Your task to perform on an android device: change the clock display to digital Image 0: 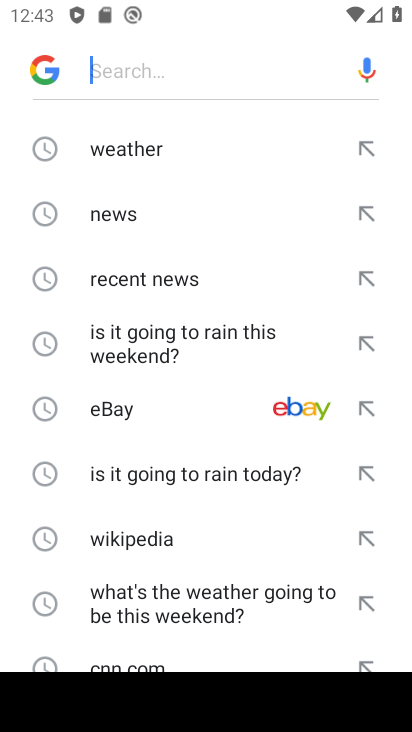
Step 0: press home button
Your task to perform on an android device: change the clock display to digital Image 1: 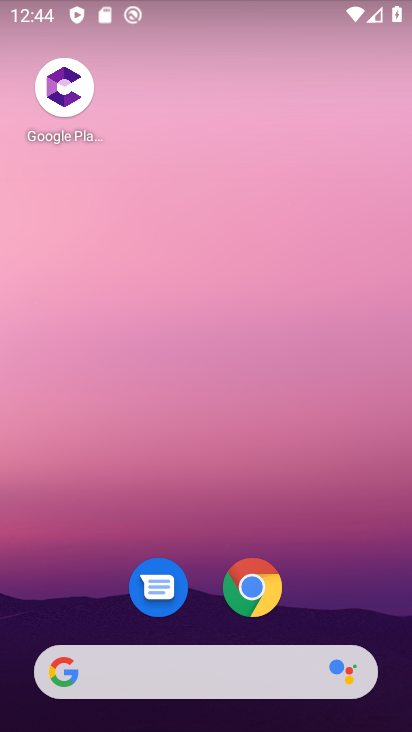
Step 1: drag from (299, 528) to (207, 24)
Your task to perform on an android device: change the clock display to digital Image 2: 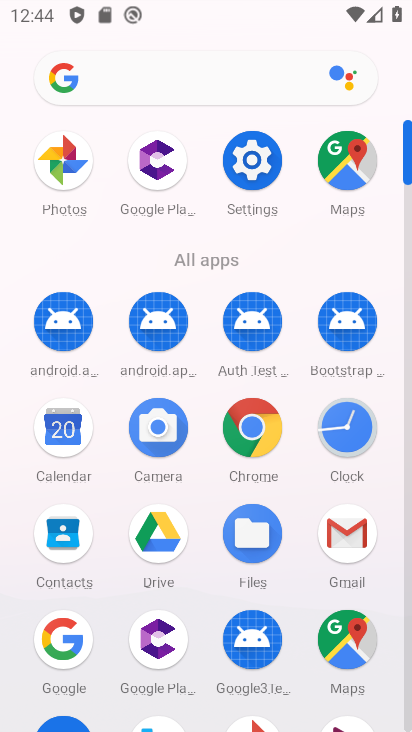
Step 2: click (171, 369)
Your task to perform on an android device: change the clock display to digital Image 3: 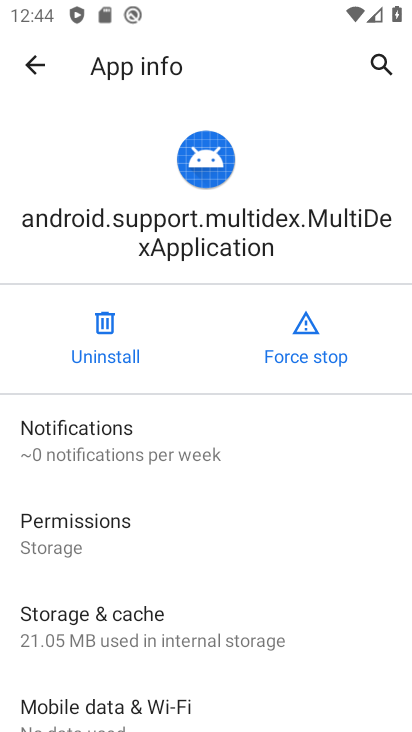
Step 3: press home button
Your task to perform on an android device: change the clock display to digital Image 4: 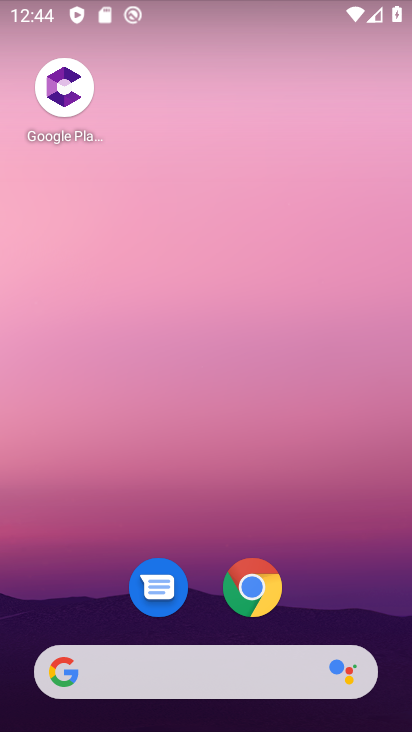
Step 4: drag from (325, 558) to (239, 93)
Your task to perform on an android device: change the clock display to digital Image 5: 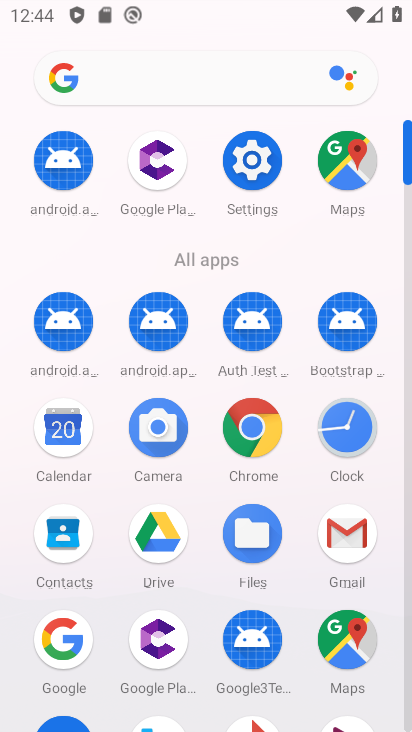
Step 5: click (345, 428)
Your task to perform on an android device: change the clock display to digital Image 6: 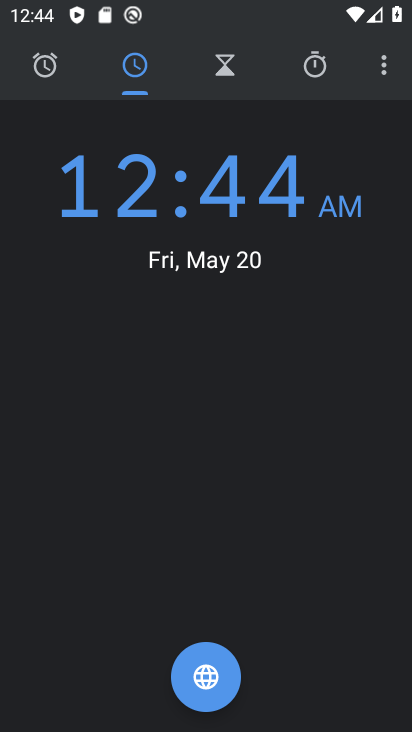
Step 6: click (379, 64)
Your task to perform on an android device: change the clock display to digital Image 7: 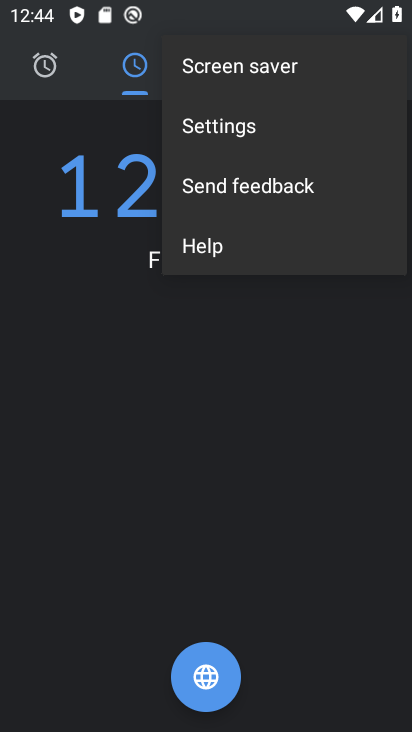
Step 7: click (239, 122)
Your task to perform on an android device: change the clock display to digital Image 8: 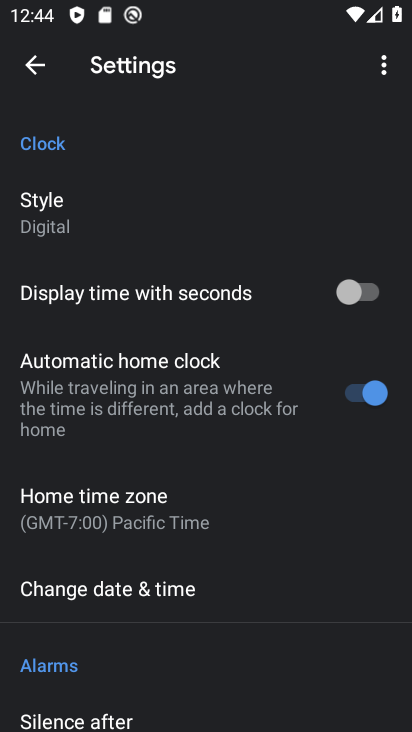
Step 8: click (40, 208)
Your task to perform on an android device: change the clock display to digital Image 9: 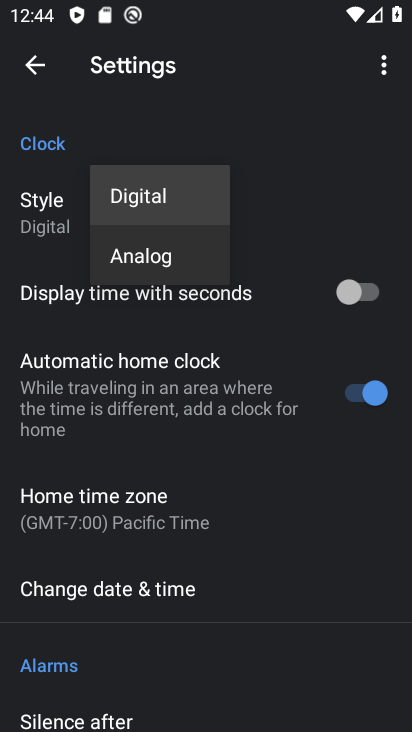
Step 9: click (163, 201)
Your task to perform on an android device: change the clock display to digital Image 10: 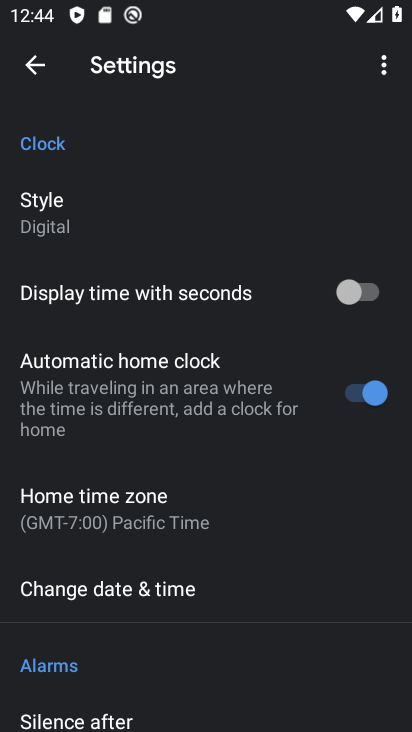
Step 10: task complete